Your task to perform on an android device: Open Youtube and go to the subscriptions tab Image 0: 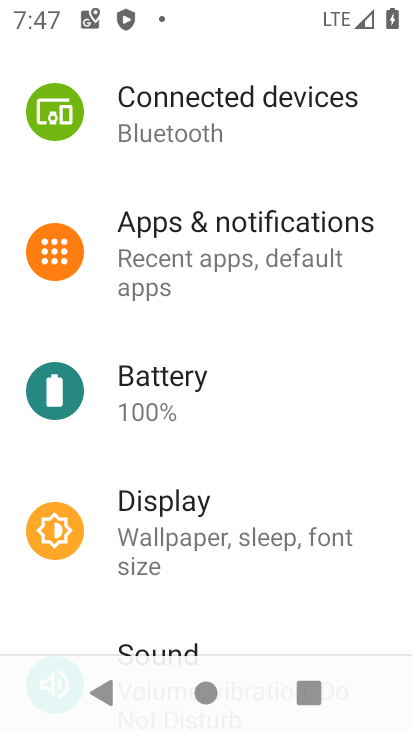
Step 0: press home button
Your task to perform on an android device: Open Youtube and go to the subscriptions tab Image 1: 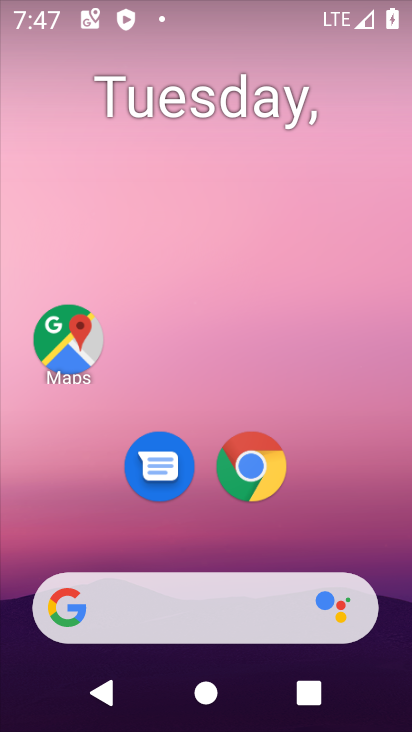
Step 1: drag from (371, 502) to (331, 93)
Your task to perform on an android device: Open Youtube and go to the subscriptions tab Image 2: 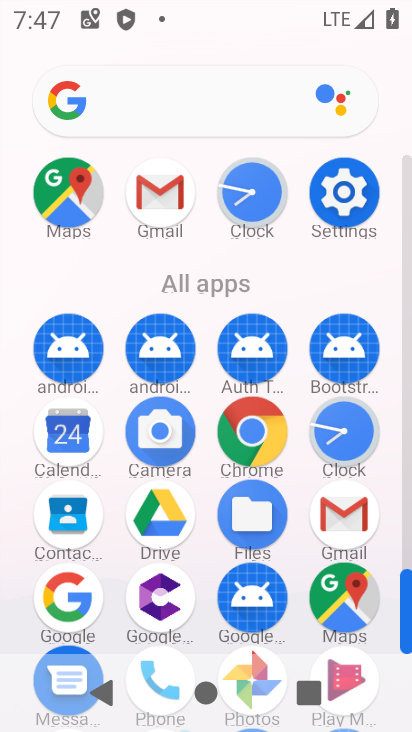
Step 2: click (410, 714)
Your task to perform on an android device: Open Youtube and go to the subscriptions tab Image 3: 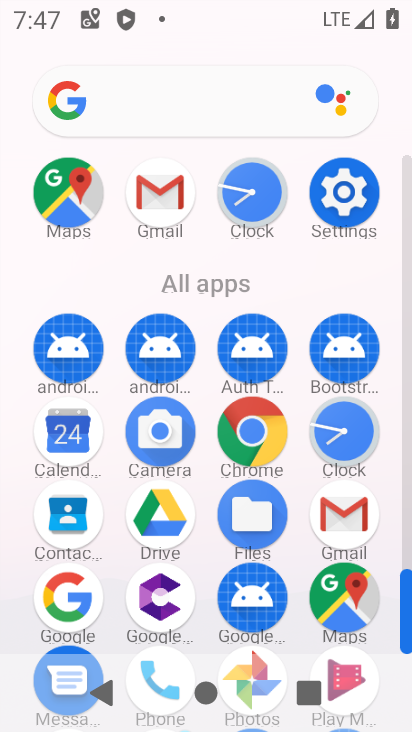
Step 3: click (410, 637)
Your task to perform on an android device: Open Youtube and go to the subscriptions tab Image 4: 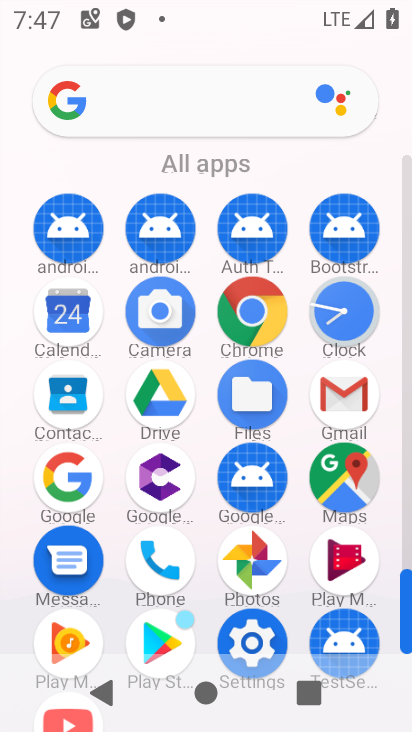
Step 4: drag from (407, 605) to (412, 674)
Your task to perform on an android device: Open Youtube and go to the subscriptions tab Image 5: 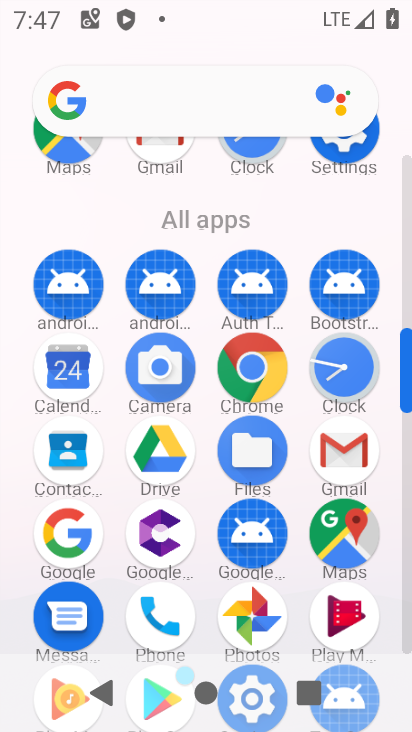
Step 5: click (409, 647)
Your task to perform on an android device: Open Youtube and go to the subscriptions tab Image 6: 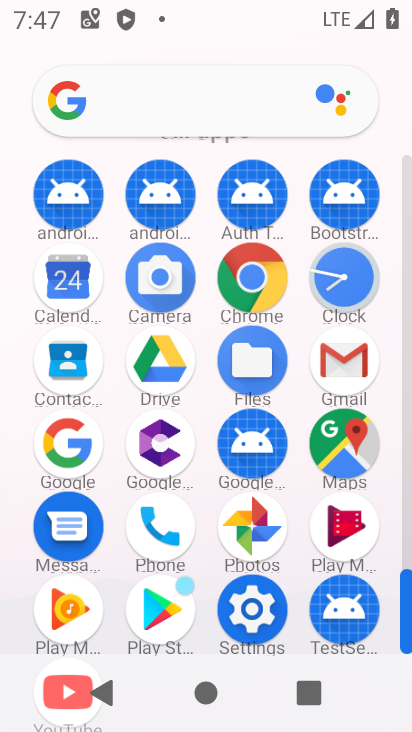
Step 6: click (409, 647)
Your task to perform on an android device: Open Youtube and go to the subscriptions tab Image 7: 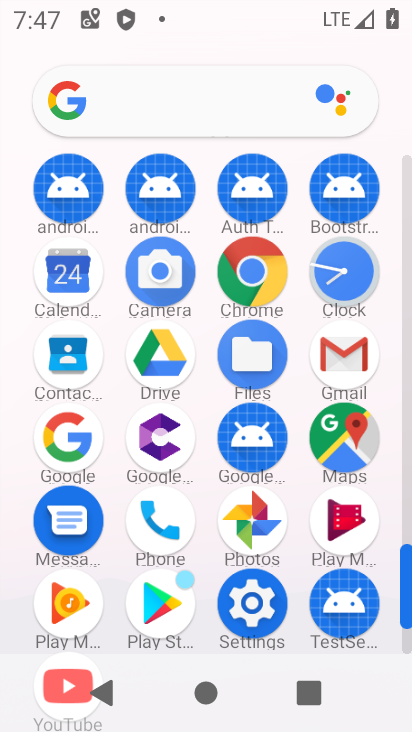
Step 7: click (407, 649)
Your task to perform on an android device: Open Youtube and go to the subscriptions tab Image 8: 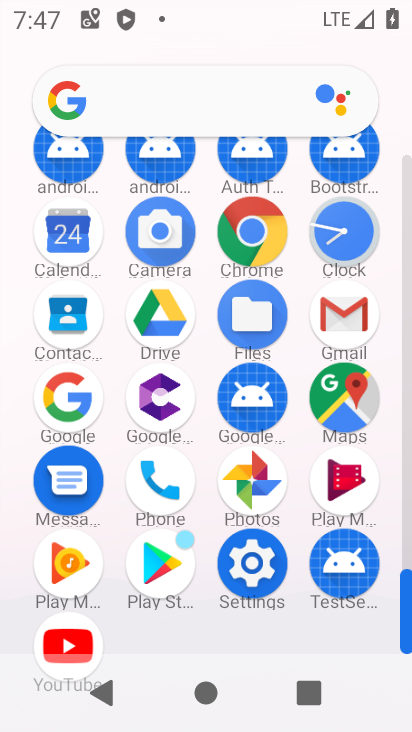
Step 8: click (55, 632)
Your task to perform on an android device: Open Youtube and go to the subscriptions tab Image 9: 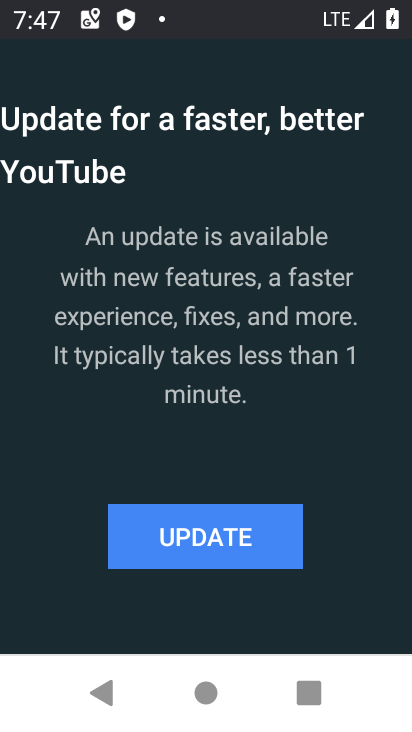
Step 9: click (217, 550)
Your task to perform on an android device: Open Youtube and go to the subscriptions tab Image 10: 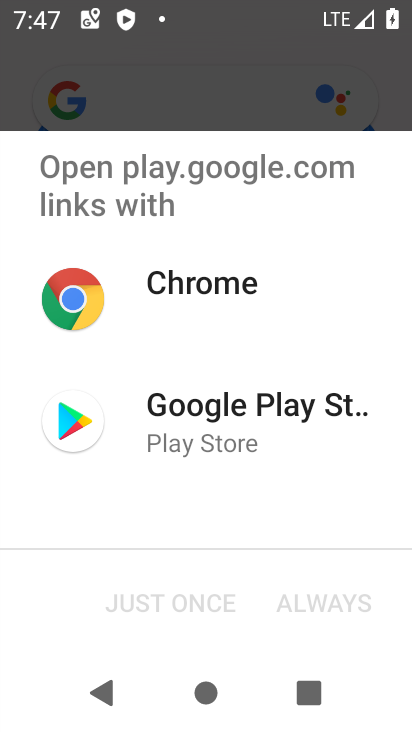
Step 10: click (150, 403)
Your task to perform on an android device: Open Youtube and go to the subscriptions tab Image 11: 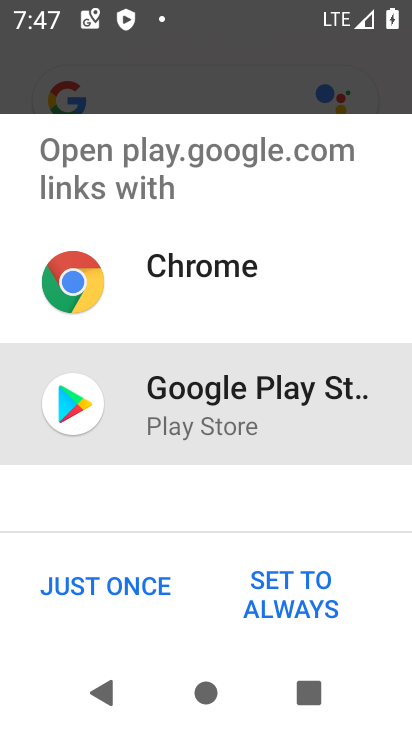
Step 11: click (107, 570)
Your task to perform on an android device: Open Youtube and go to the subscriptions tab Image 12: 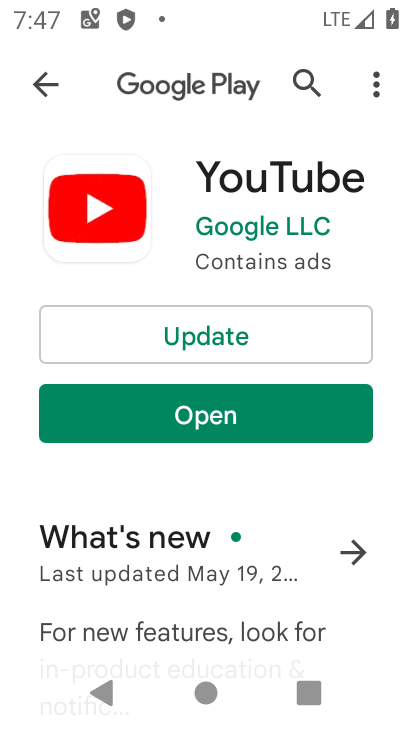
Step 12: click (172, 350)
Your task to perform on an android device: Open Youtube and go to the subscriptions tab Image 13: 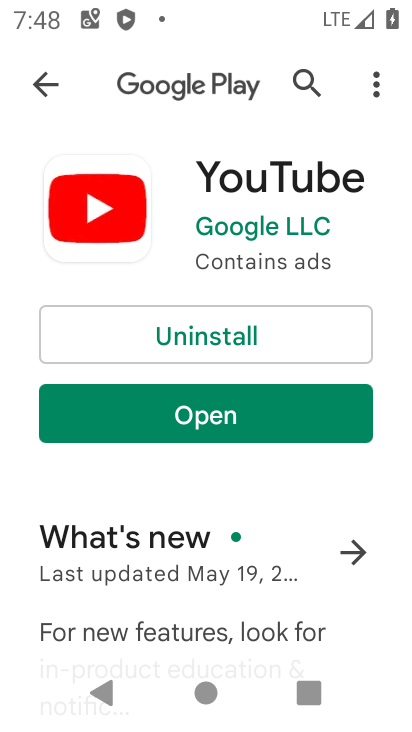
Step 13: click (237, 430)
Your task to perform on an android device: Open Youtube and go to the subscriptions tab Image 14: 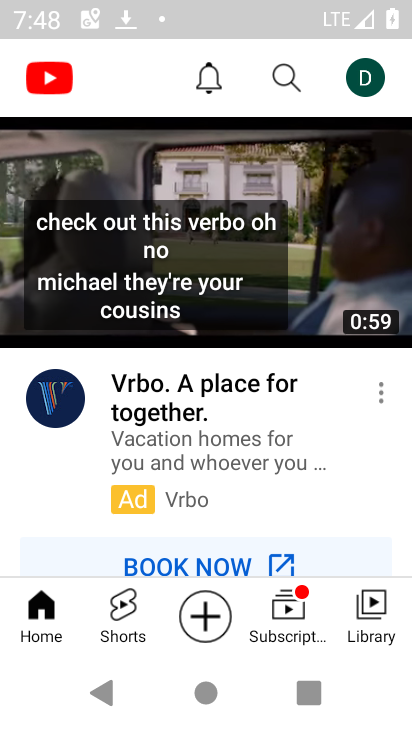
Step 14: click (278, 595)
Your task to perform on an android device: Open Youtube and go to the subscriptions tab Image 15: 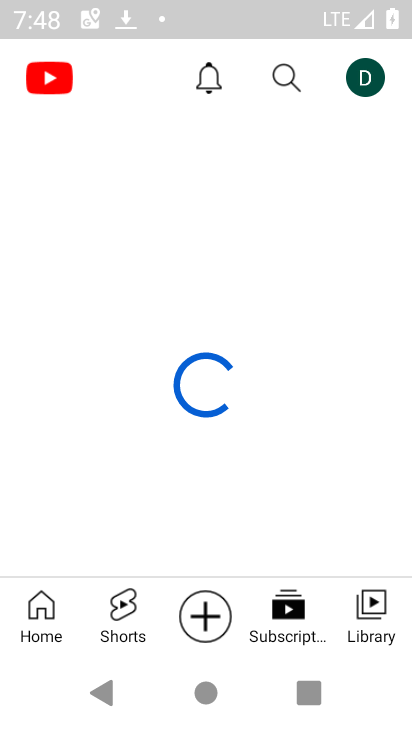
Step 15: task complete